Your task to perform on an android device: toggle show notifications on the lock screen Image 0: 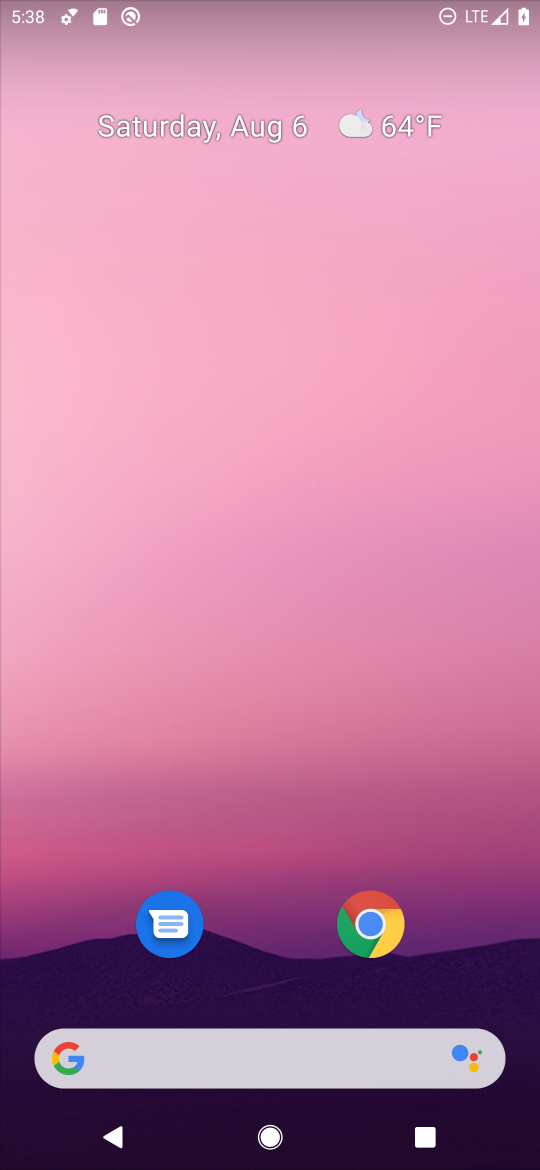
Step 0: drag from (256, 863) to (256, 9)
Your task to perform on an android device: toggle show notifications on the lock screen Image 1: 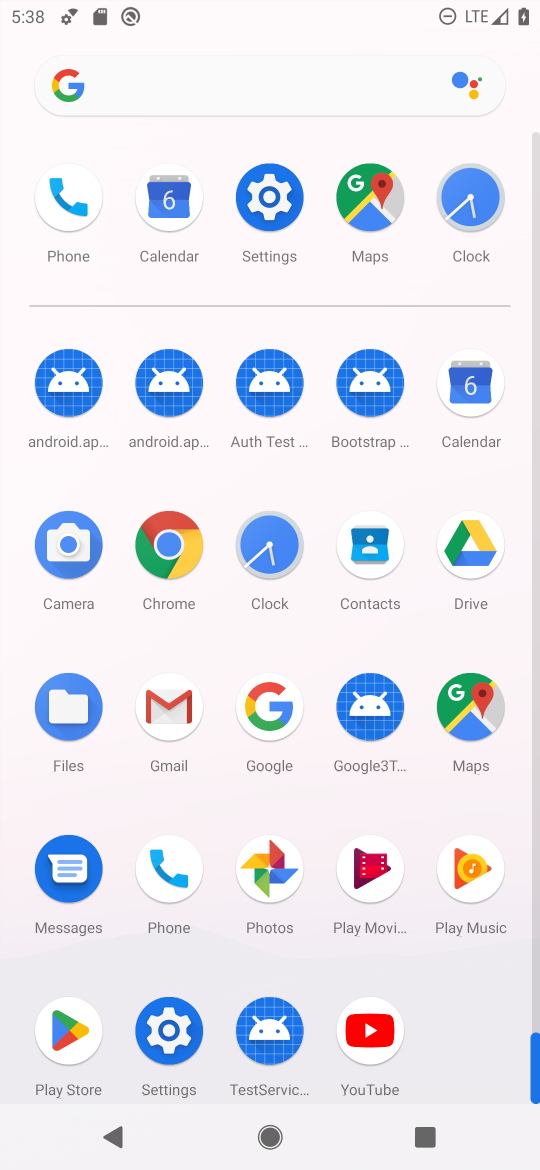
Step 1: click (266, 191)
Your task to perform on an android device: toggle show notifications on the lock screen Image 2: 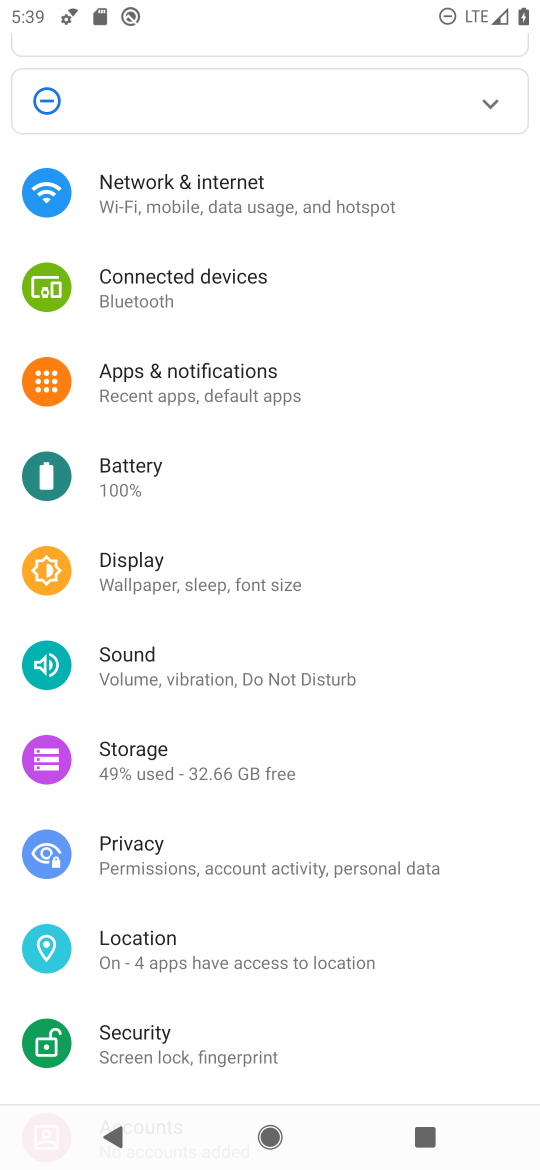
Step 2: click (198, 369)
Your task to perform on an android device: toggle show notifications on the lock screen Image 3: 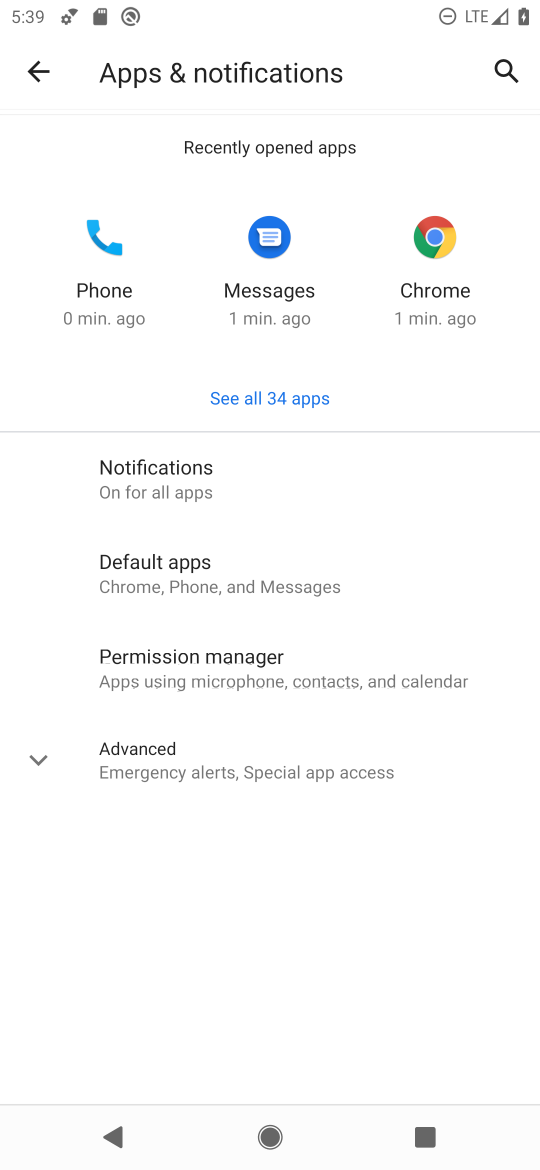
Step 3: click (181, 461)
Your task to perform on an android device: toggle show notifications on the lock screen Image 4: 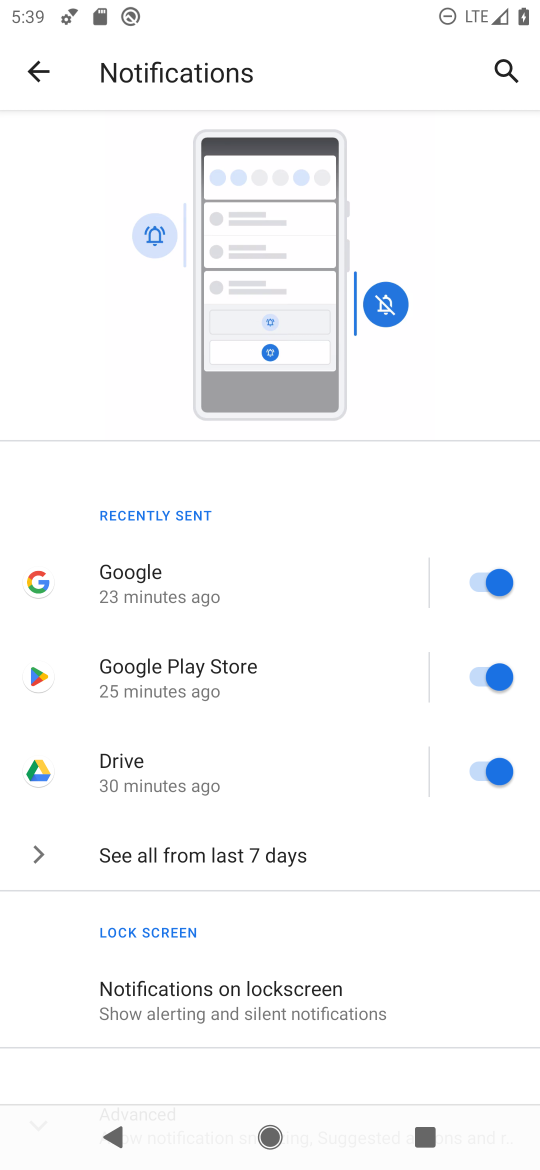
Step 4: click (200, 978)
Your task to perform on an android device: toggle show notifications on the lock screen Image 5: 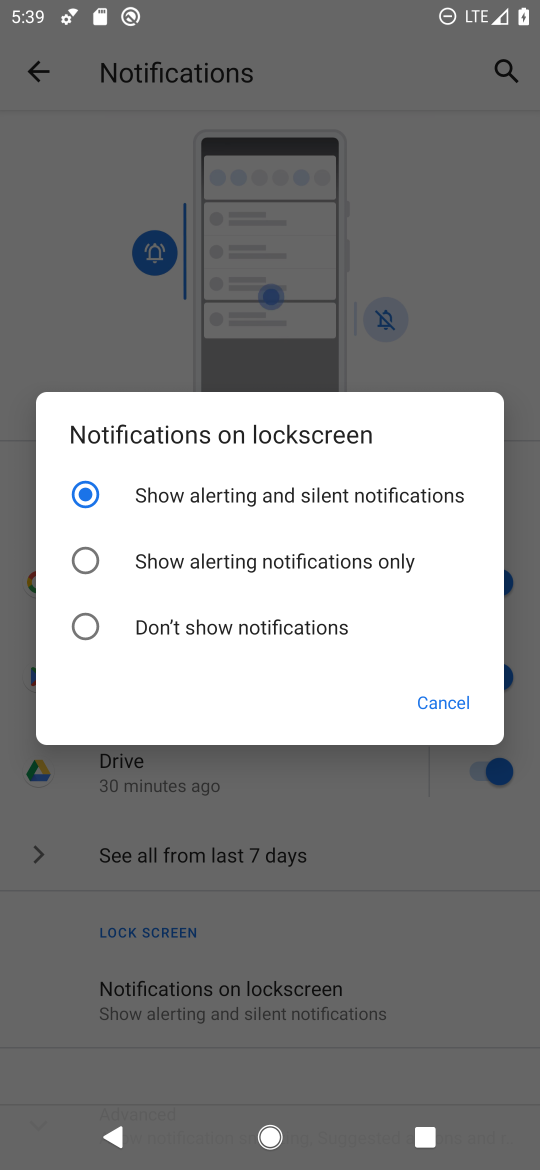
Step 5: click (84, 627)
Your task to perform on an android device: toggle show notifications on the lock screen Image 6: 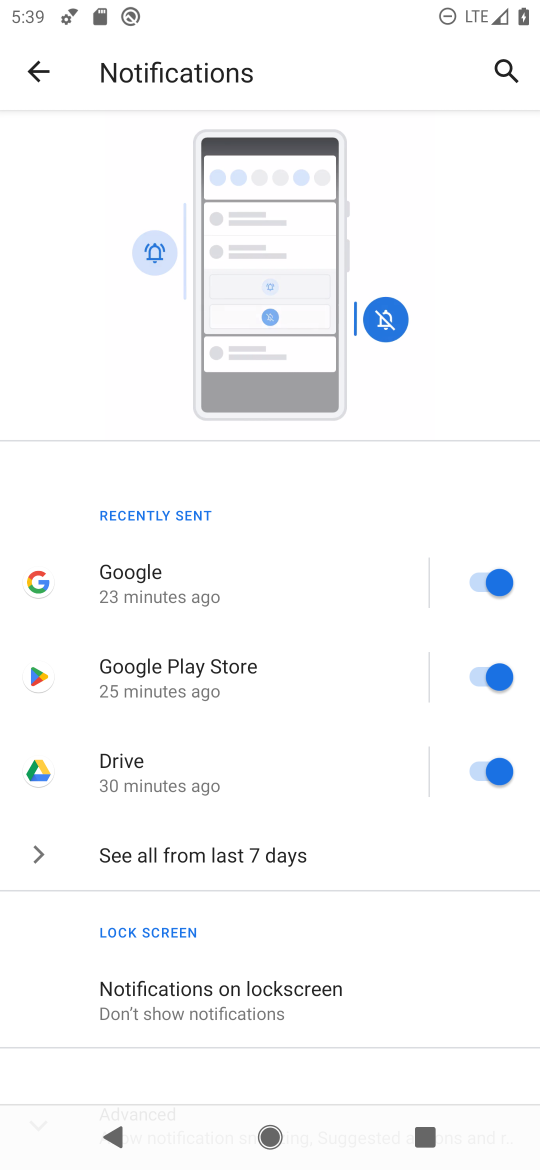
Step 6: task complete